Your task to perform on an android device: empty trash in google photos Image 0: 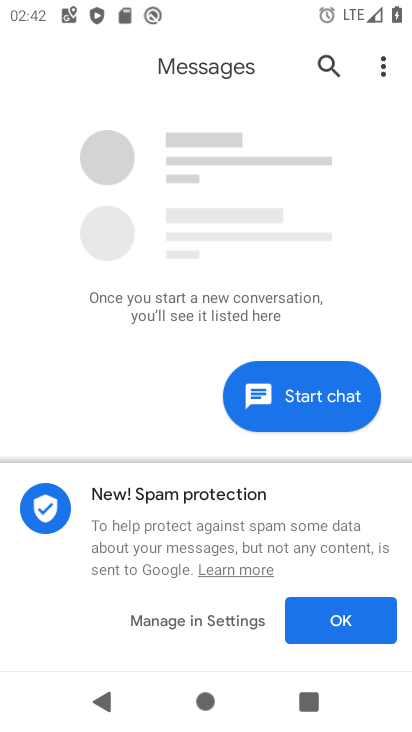
Step 0: press home button
Your task to perform on an android device: empty trash in google photos Image 1: 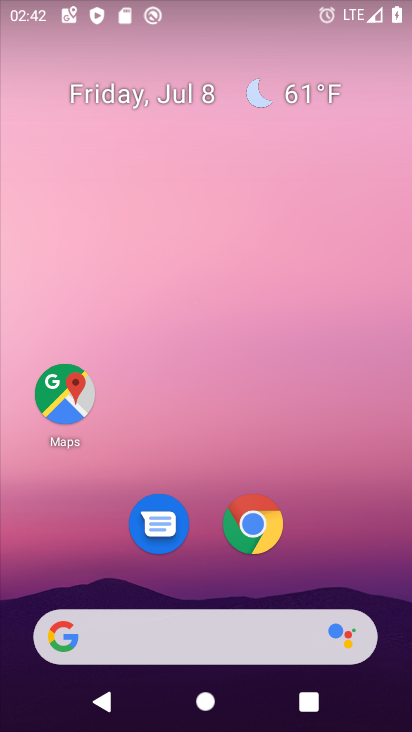
Step 1: drag from (348, 551) to (320, 29)
Your task to perform on an android device: empty trash in google photos Image 2: 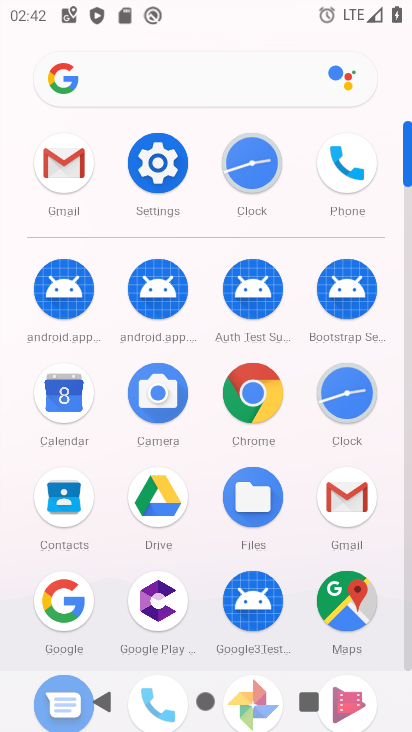
Step 2: drag from (211, 222) to (212, 161)
Your task to perform on an android device: empty trash in google photos Image 3: 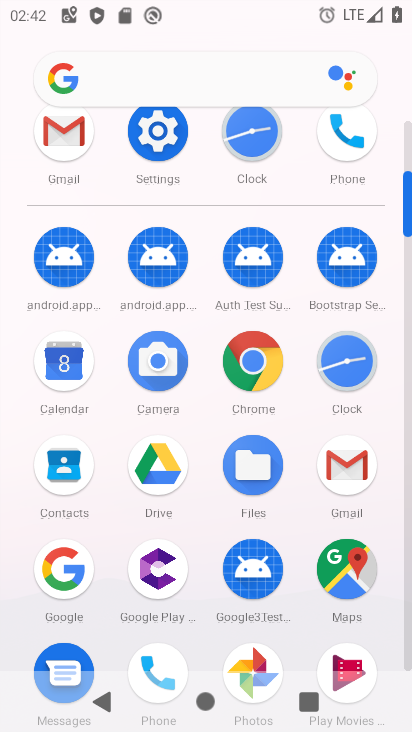
Step 3: drag from (207, 531) to (214, 305)
Your task to perform on an android device: empty trash in google photos Image 4: 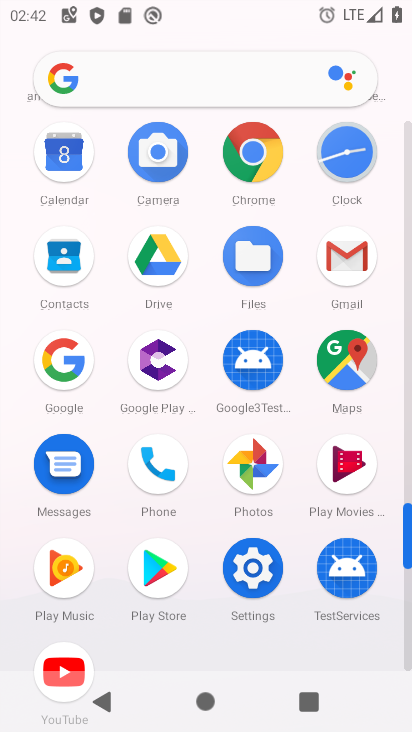
Step 4: click (254, 462)
Your task to perform on an android device: empty trash in google photos Image 5: 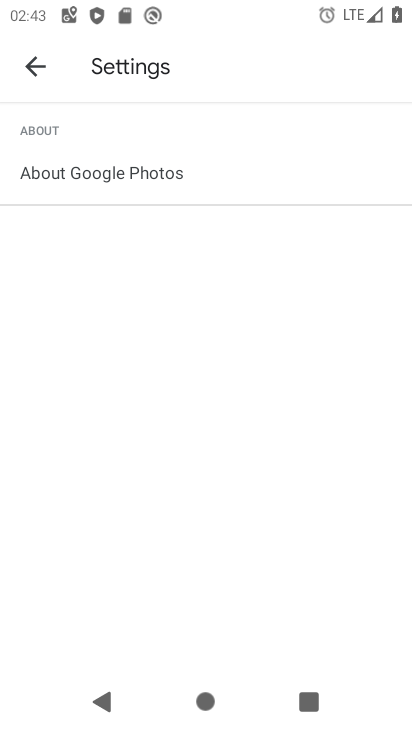
Step 5: click (30, 61)
Your task to perform on an android device: empty trash in google photos Image 6: 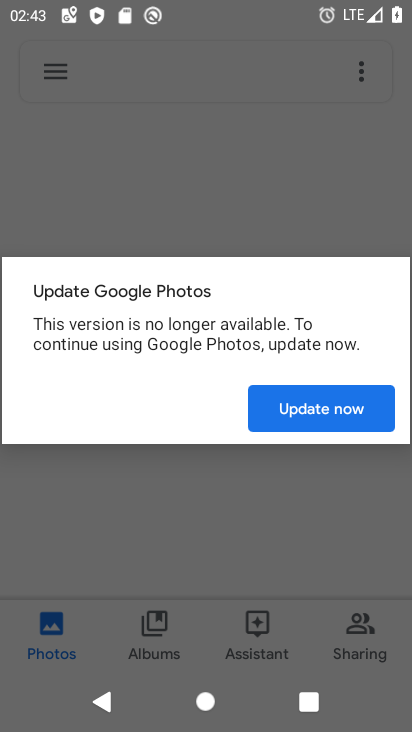
Step 6: click (284, 411)
Your task to perform on an android device: empty trash in google photos Image 7: 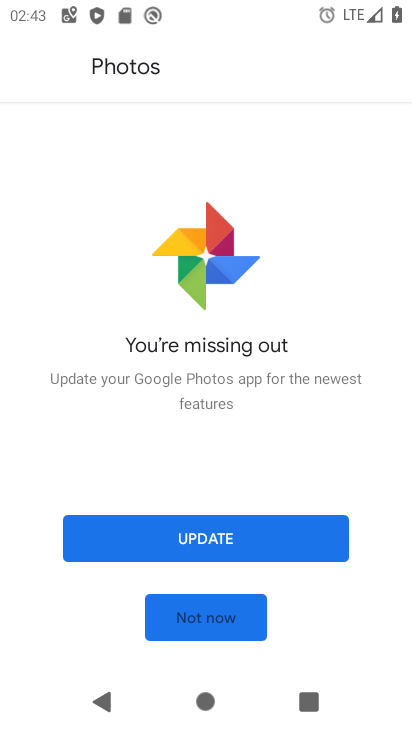
Step 7: click (264, 610)
Your task to perform on an android device: empty trash in google photos Image 8: 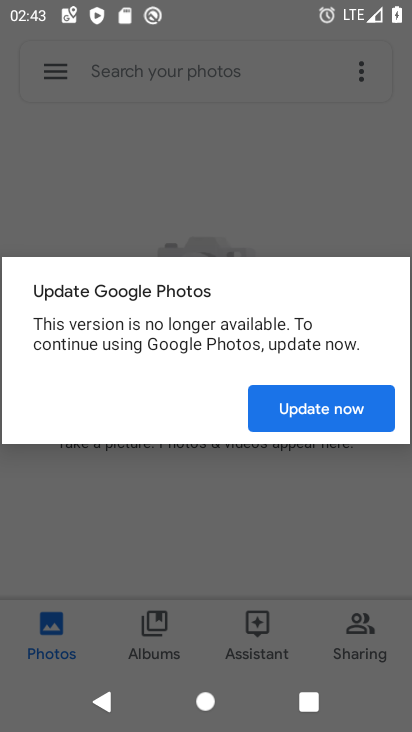
Step 8: click (294, 415)
Your task to perform on an android device: empty trash in google photos Image 9: 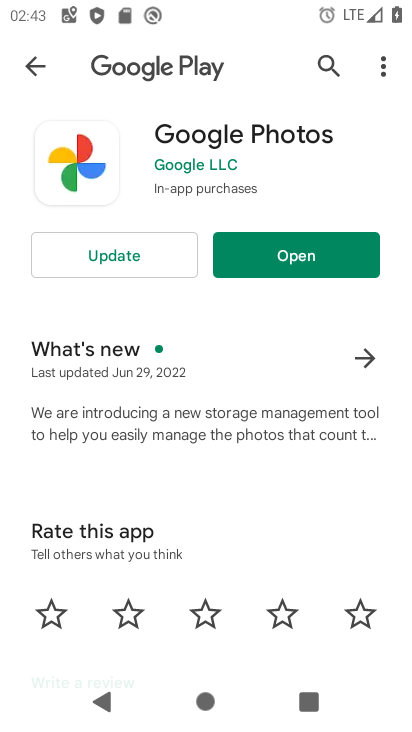
Step 9: click (296, 239)
Your task to perform on an android device: empty trash in google photos Image 10: 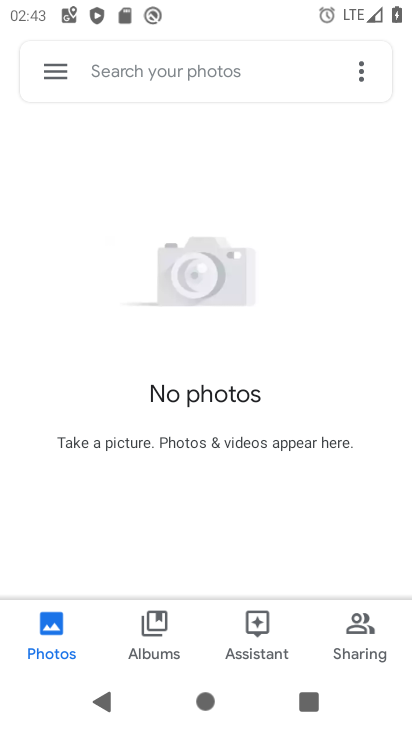
Step 10: click (62, 78)
Your task to perform on an android device: empty trash in google photos Image 11: 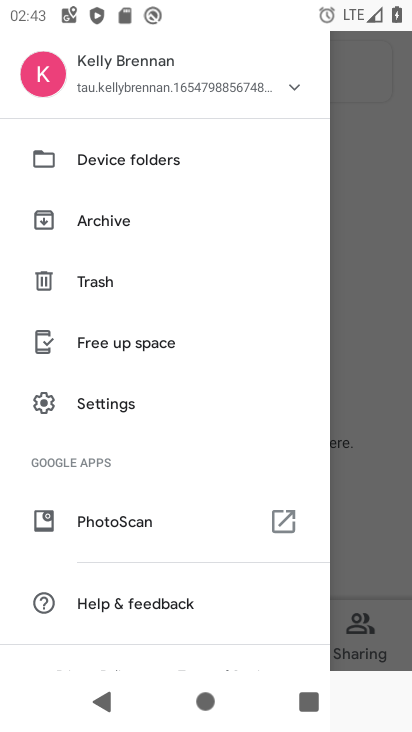
Step 11: click (100, 280)
Your task to perform on an android device: empty trash in google photos Image 12: 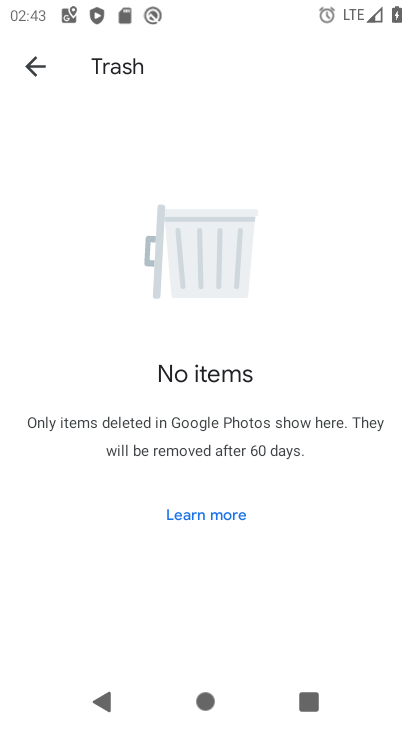
Step 12: task complete